Your task to perform on an android device: toggle translation in the chrome app Image 0: 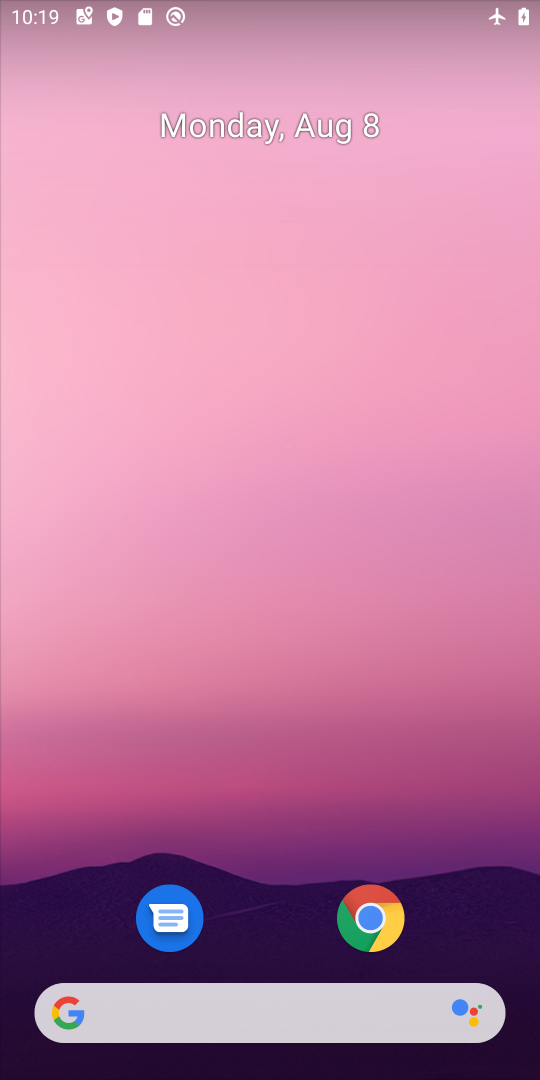
Step 0: click (378, 934)
Your task to perform on an android device: toggle translation in the chrome app Image 1: 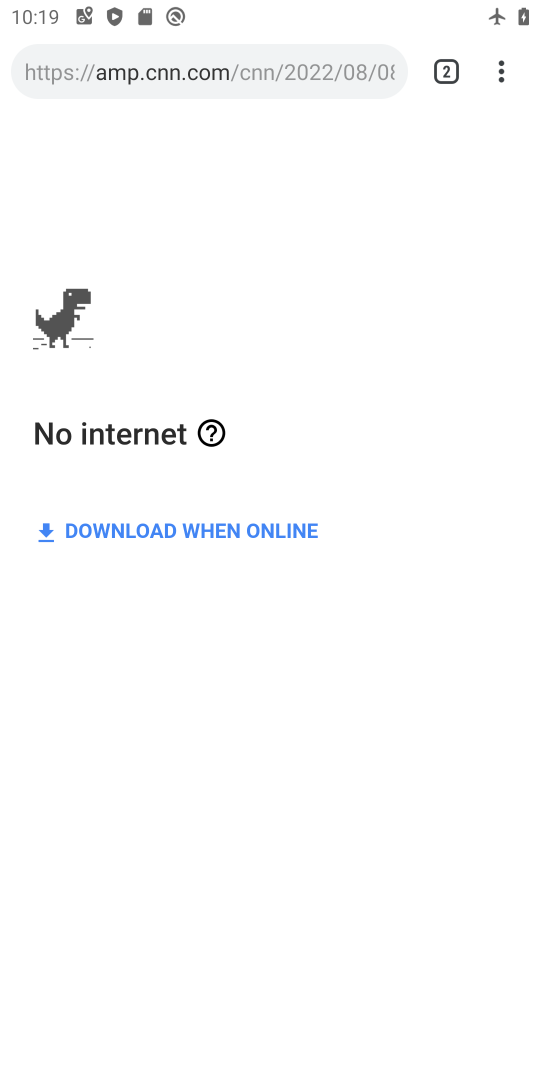
Step 1: drag from (491, 69) to (274, 801)
Your task to perform on an android device: toggle translation in the chrome app Image 2: 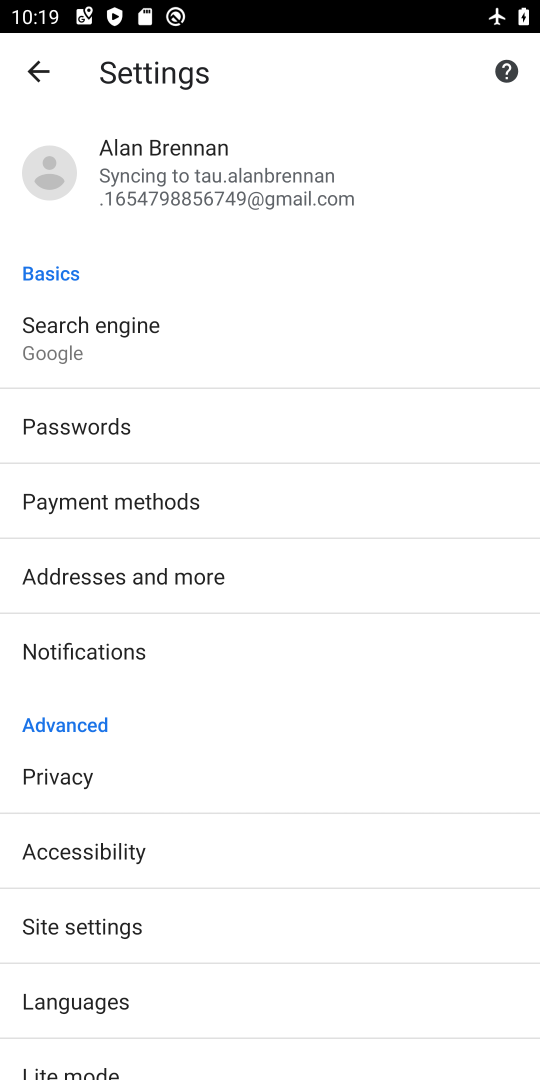
Step 2: click (133, 976)
Your task to perform on an android device: toggle translation in the chrome app Image 3: 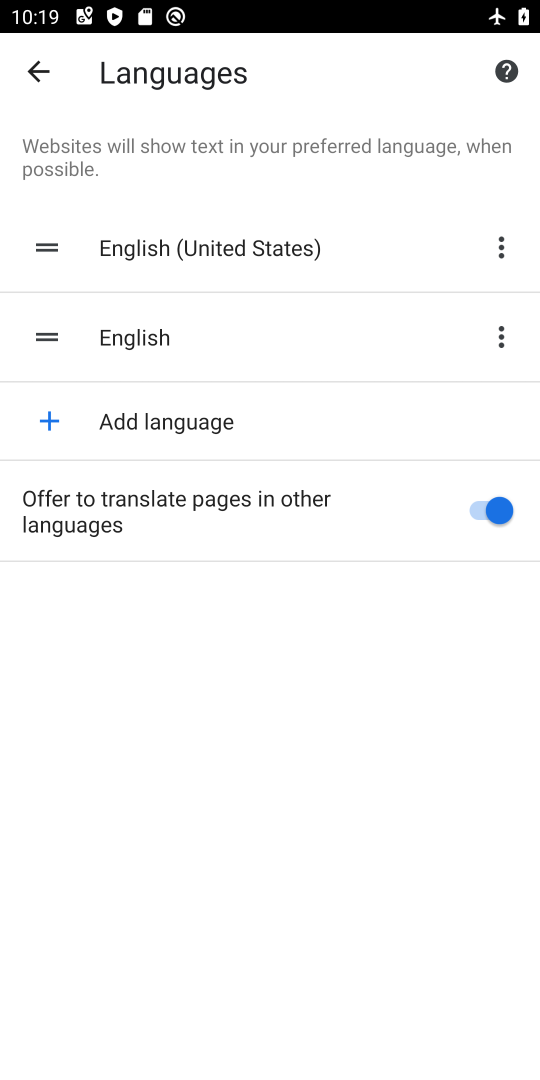
Step 3: click (486, 508)
Your task to perform on an android device: toggle translation in the chrome app Image 4: 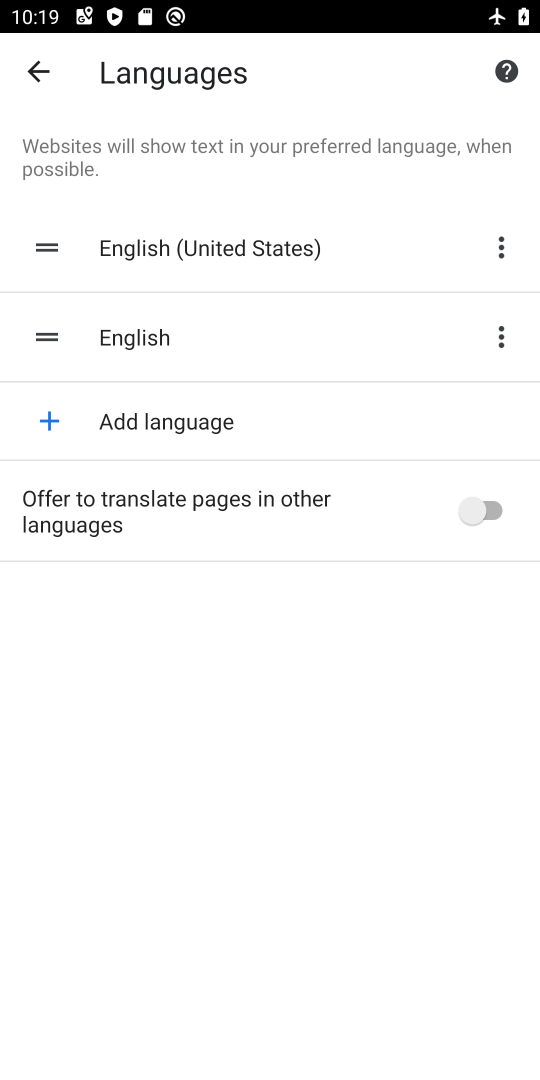
Step 4: task complete